Your task to perform on an android device: Go to Reddit.com Image 0: 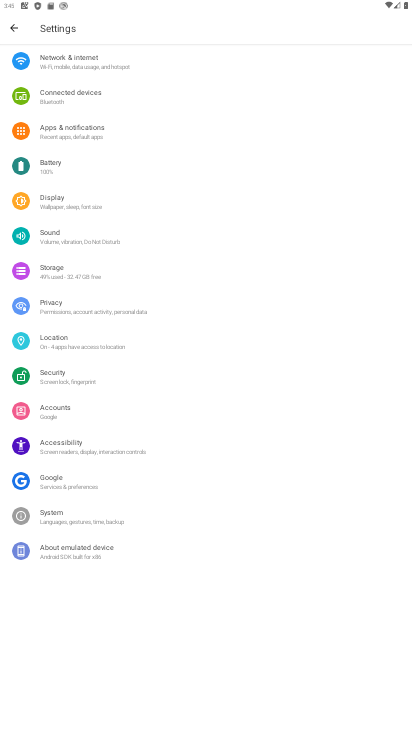
Step 0: task complete